Your task to perform on an android device: How big is a tiger? Image 0: 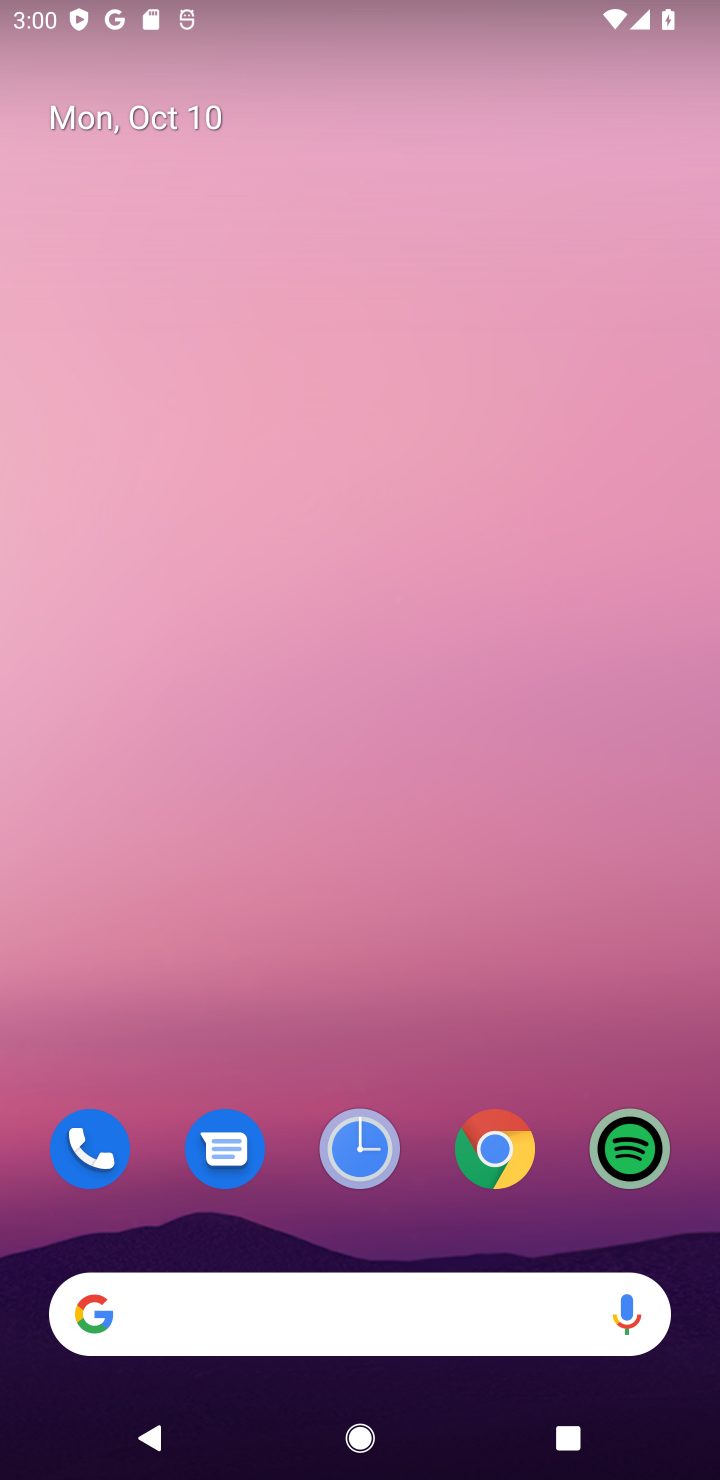
Step 0: click (305, 1327)
Your task to perform on an android device: How big is a tiger? Image 1: 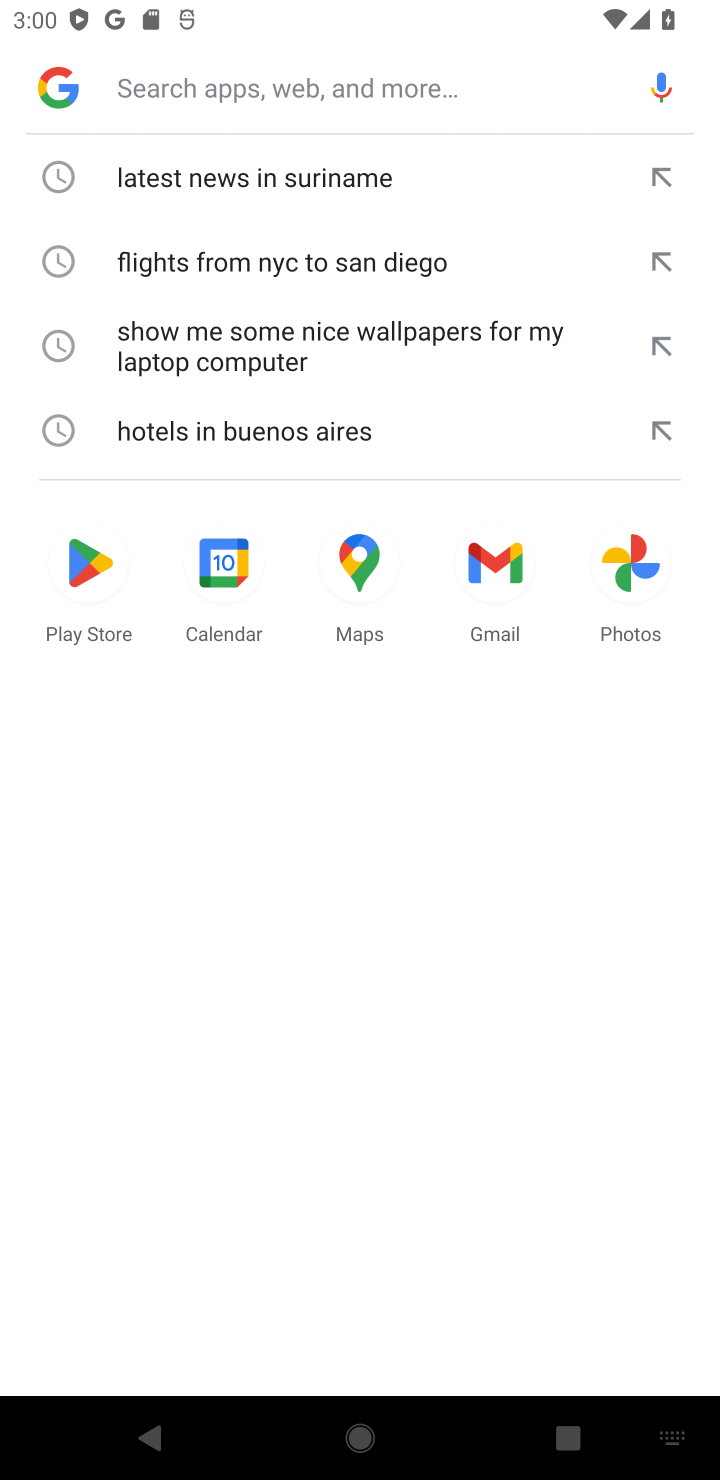
Step 1: type "How big is a tiger"
Your task to perform on an android device: How big is a tiger? Image 2: 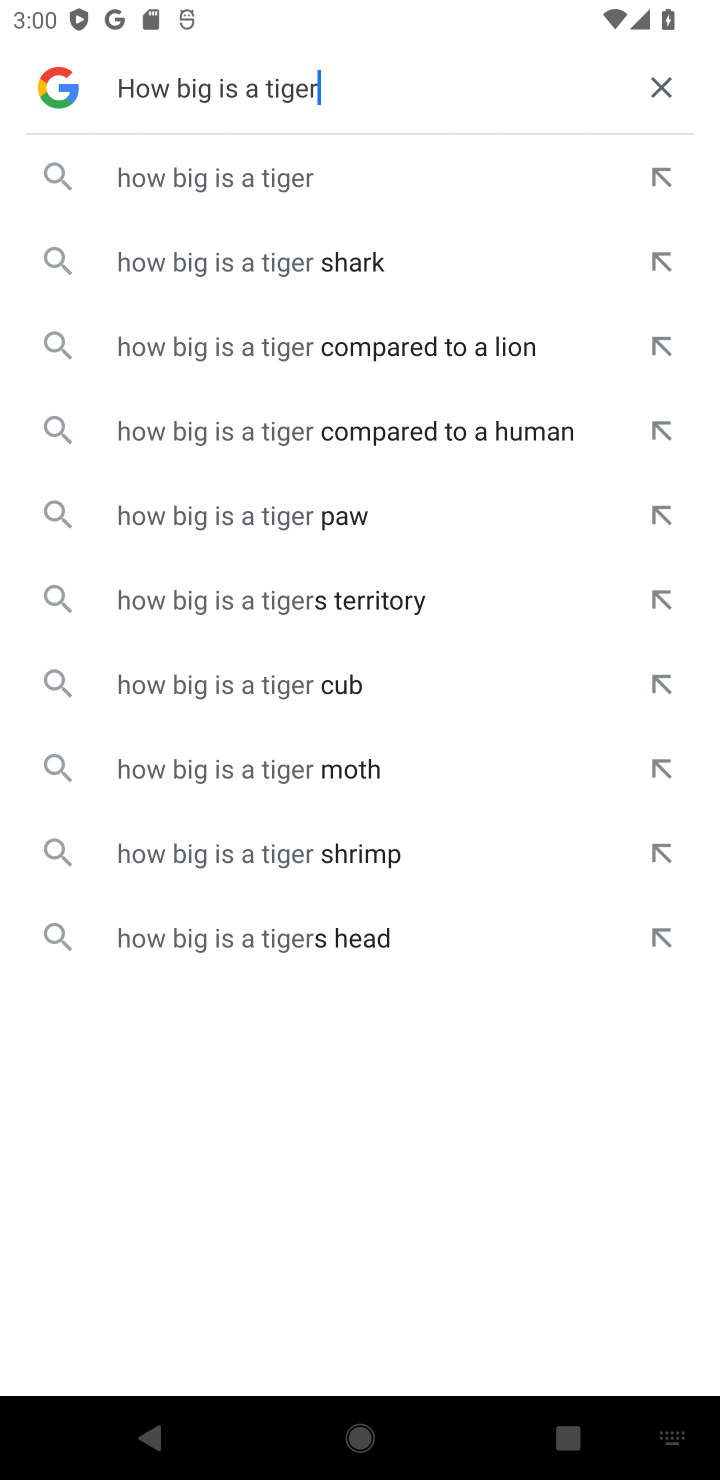
Step 2: click (447, 156)
Your task to perform on an android device: How big is a tiger? Image 3: 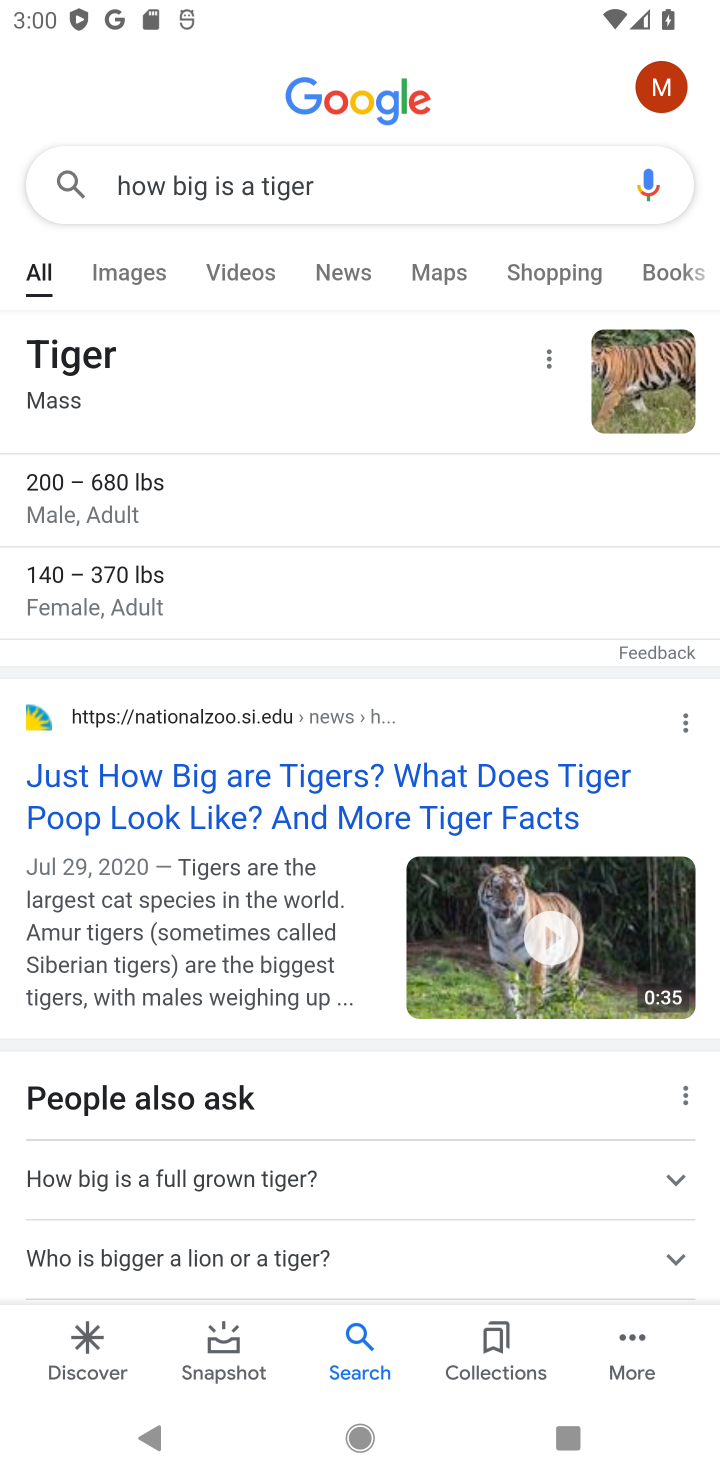
Step 3: task complete